Your task to perform on an android device: open sync settings in chrome Image 0: 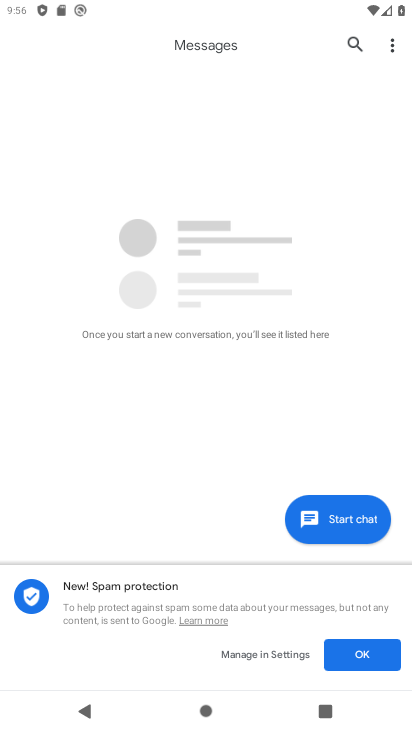
Step 0: press home button
Your task to perform on an android device: open sync settings in chrome Image 1: 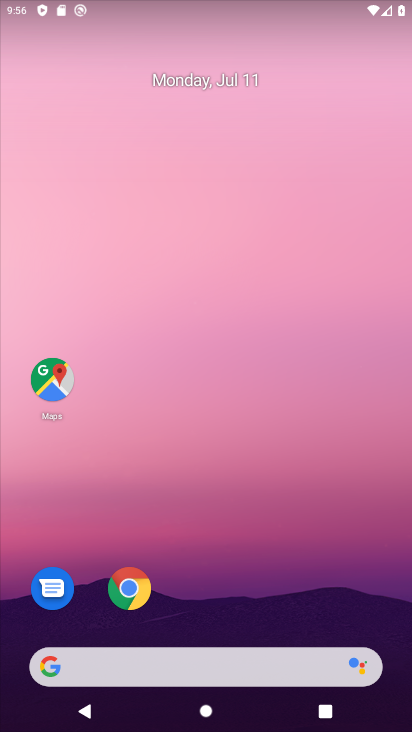
Step 1: drag from (234, 622) to (206, 14)
Your task to perform on an android device: open sync settings in chrome Image 2: 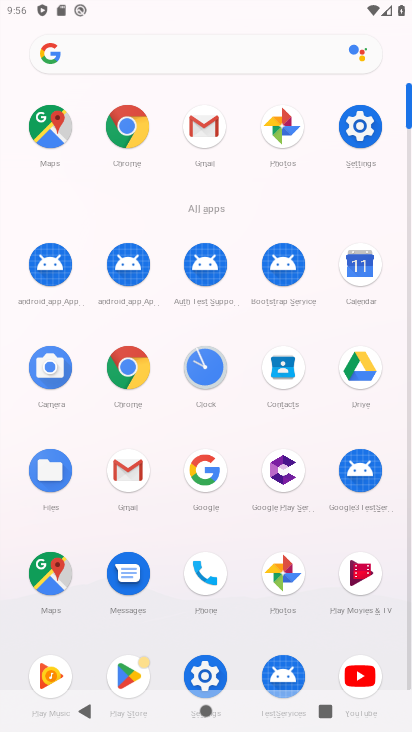
Step 2: click (117, 372)
Your task to perform on an android device: open sync settings in chrome Image 3: 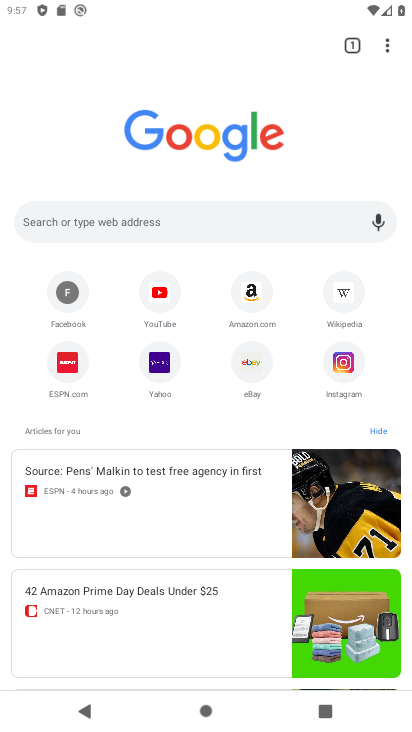
Step 3: click (392, 42)
Your task to perform on an android device: open sync settings in chrome Image 4: 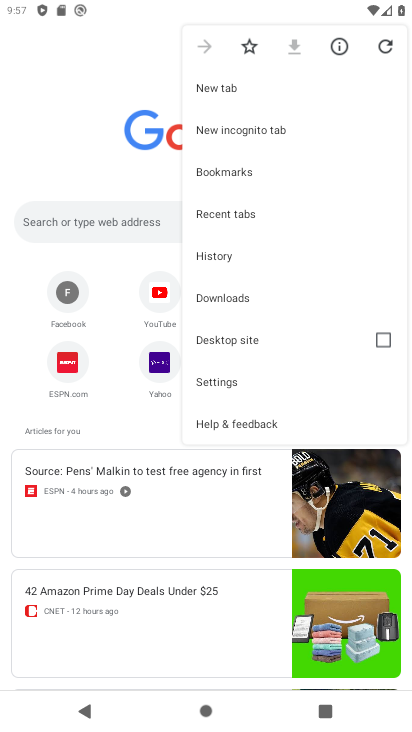
Step 4: click (237, 386)
Your task to perform on an android device: open sync settings in chrome Image 5: 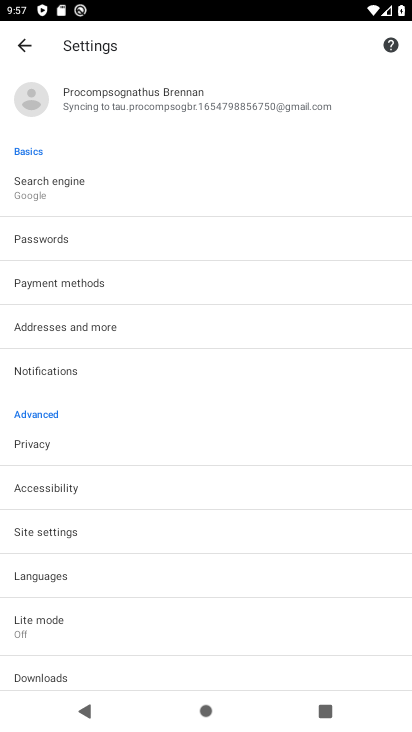
Step 5: click (125, 99)
Your task to perform on an android device: open sync settings in chrome Image 6: 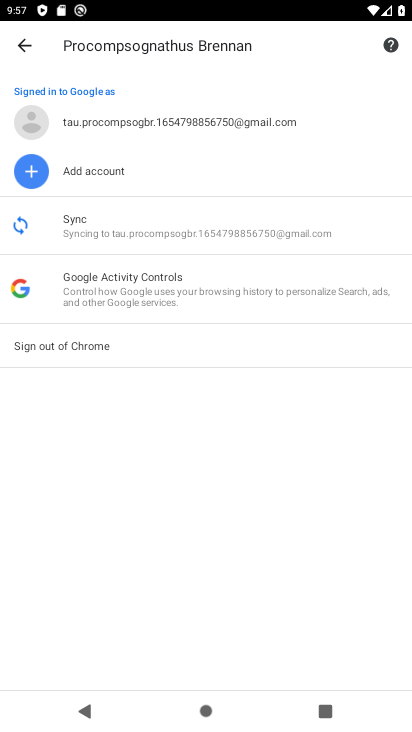
Step 6: click (309, 236)
Your task to perform on an android device: open sync settings in chrome Image 7: 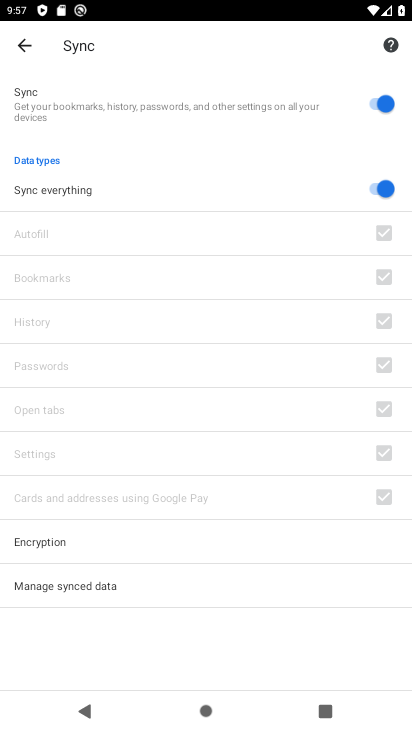
Step 7: task complete